Your task to perform on an android device: turn on translation in the chrome app Image 0: 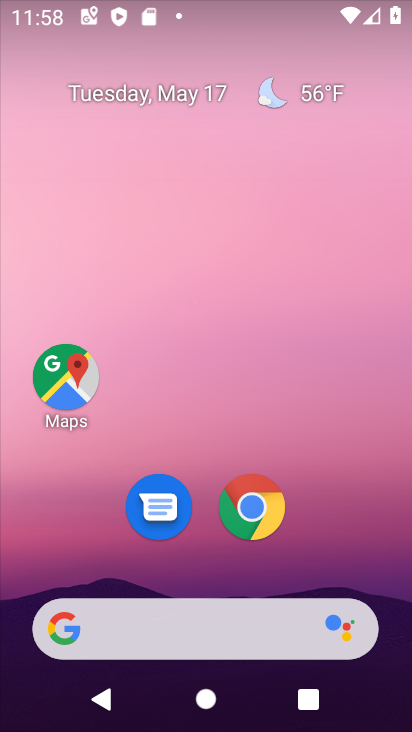
Step 0: click (235, 506)
Your task to perform on an android device: turn on translation in the chrome app Image 1: 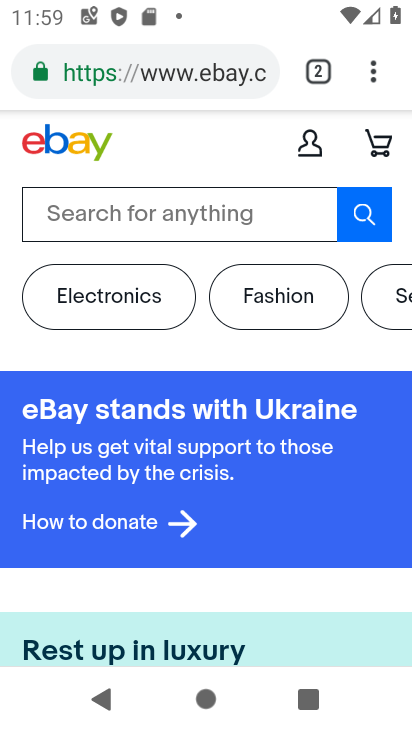
Step 1: click (371, 78)
Your task to perform on an android device: turn on translation in the chrome app Image 2: 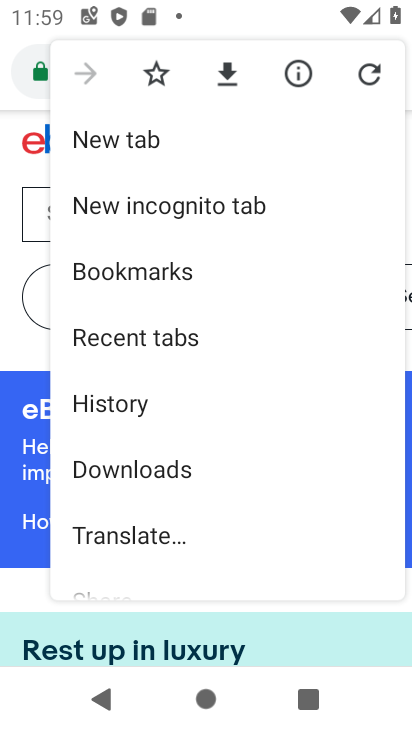
Step 2: drag from (242, 573) to (246, 130)
Your task to perform on an android device: turn on translation in the chrome app Image 3: 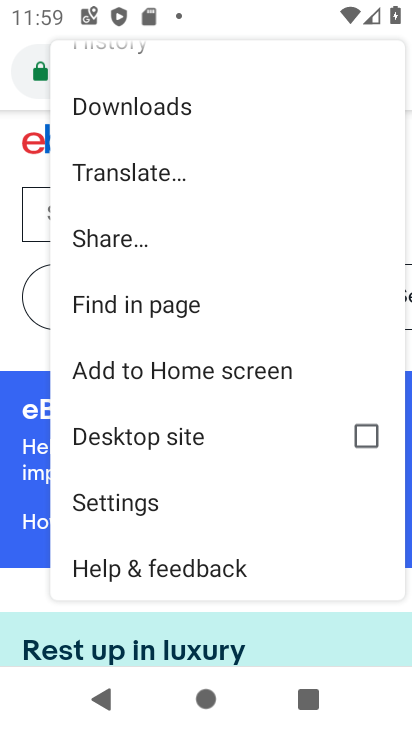
Step 3: click (236, 516)
Your task to perform on an android device: turn on translation in the chrome app Image 4: 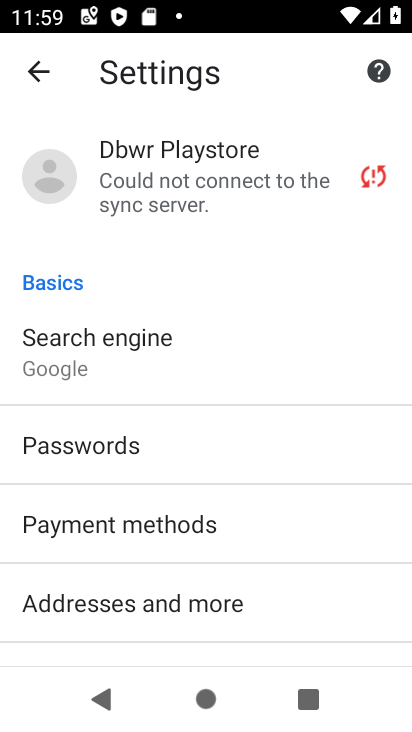
Step 4: drag from (255, 618) to (277, 63)
Your task to perform on an android device: turn on translation in the chrome app Image 5: 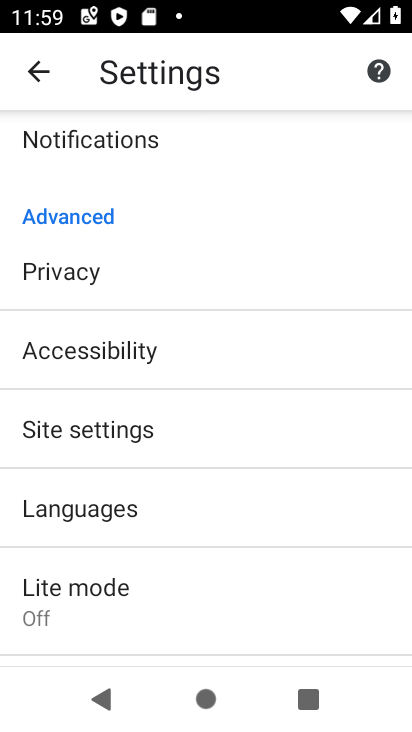
Step 5: click (181, 535)
Your task to perform on an android device: turn on translation in the chrome app Image 6: 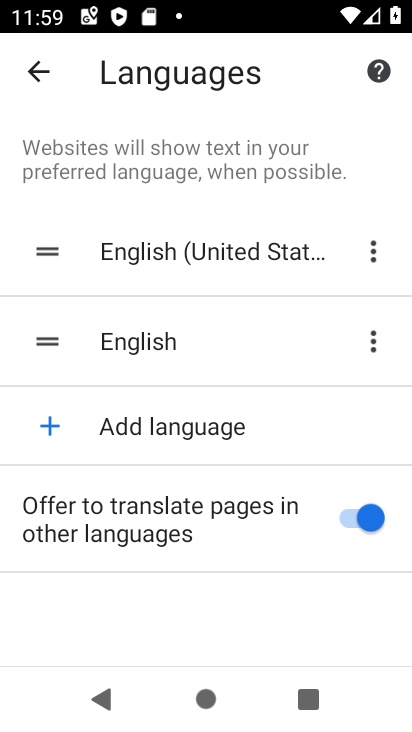
Step 6: task complete